Your task to perform on an android device: change text size in settings app Image 0: 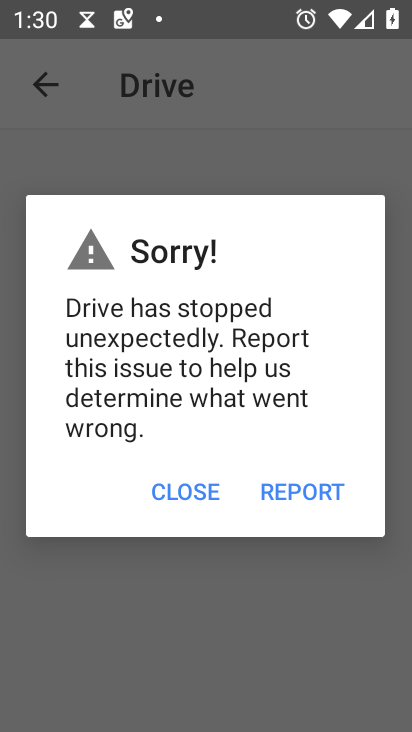
Step 0: press home button
Your task to perform on an android device: change text size in settings app Image 1: 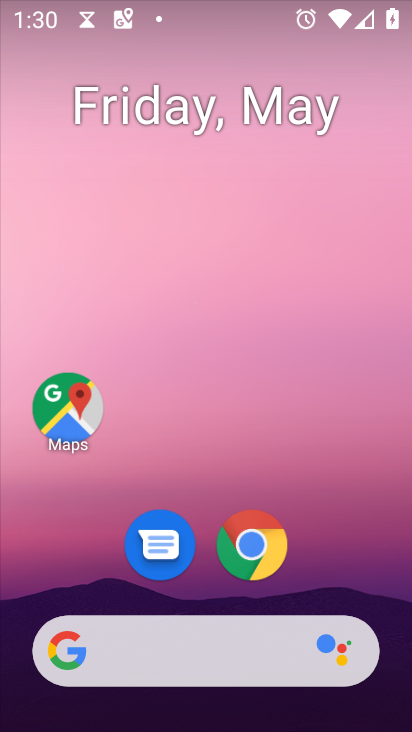
Step 1: drag from (337, 551) to (289, 260)
Your task to perform on an android device: change text size in settings app Image 2: 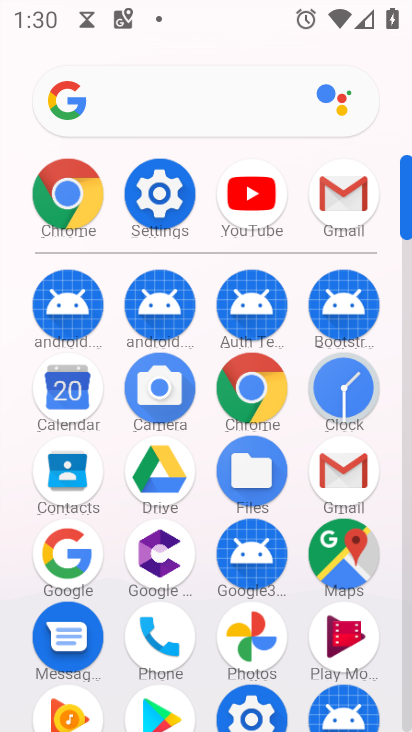
Step 2: click (169, 188)
Your task to perform on an android device: change text size in settings app Image 3: 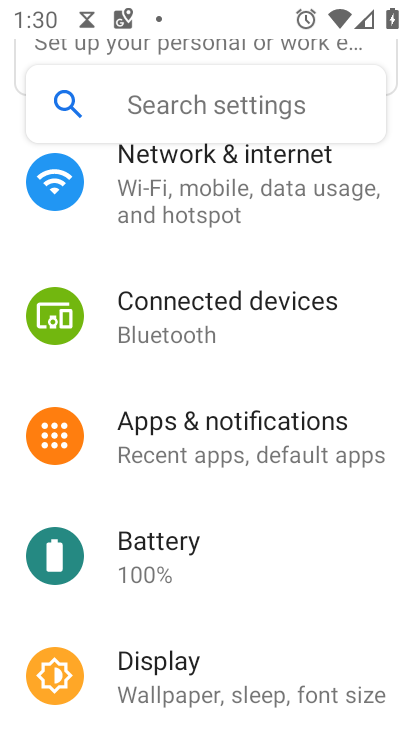
Step 3: drag from (287, 651) to (249, 240)
Your task to perform on an android device: change text size in settings app Image 4: 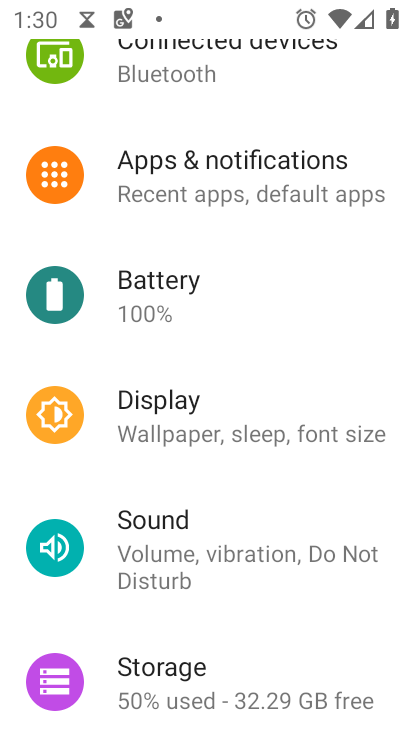
Step 4: drag from (255, 656) to (263, 251)
Your task to perform on an android device: change text size in settings app Image 5: 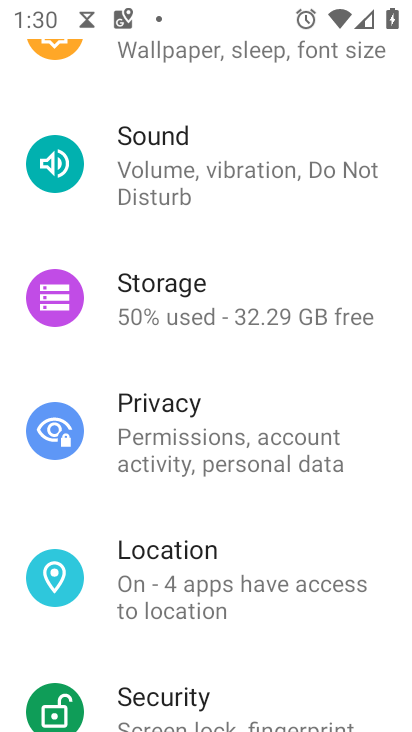
Step 5: drag from (261, 633) to (260, 122)
Your task to perform on an android device: change text size in settings app Image 6: 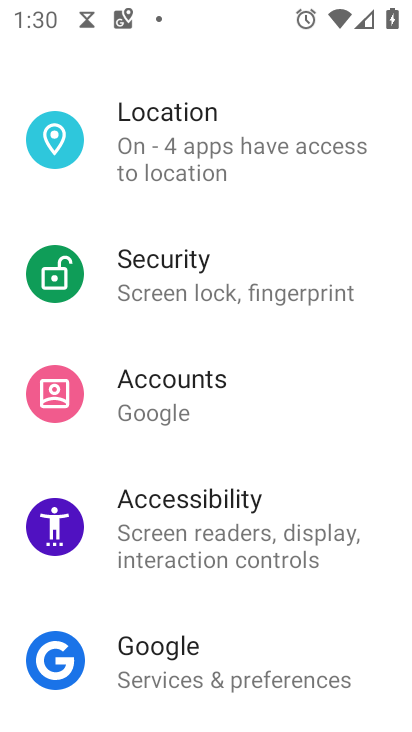
Step 6: drag from (247, 622) to (277, 220)
Your task to perform on an android device: change text size in settings app Image 7: 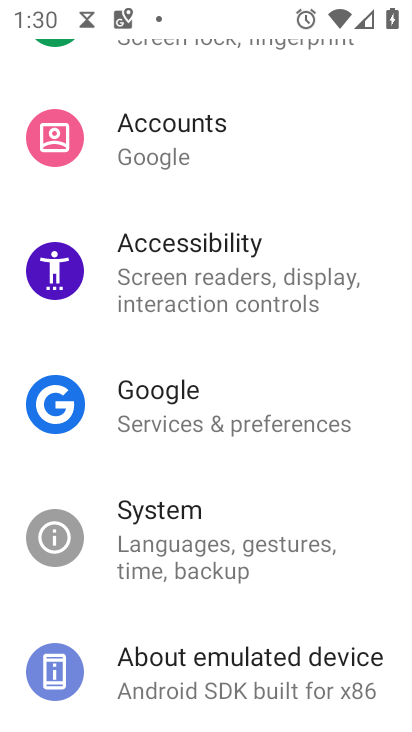
Step 7: click (234, 551)
Your task to perform on an android device: change text size in settings app Image 8: 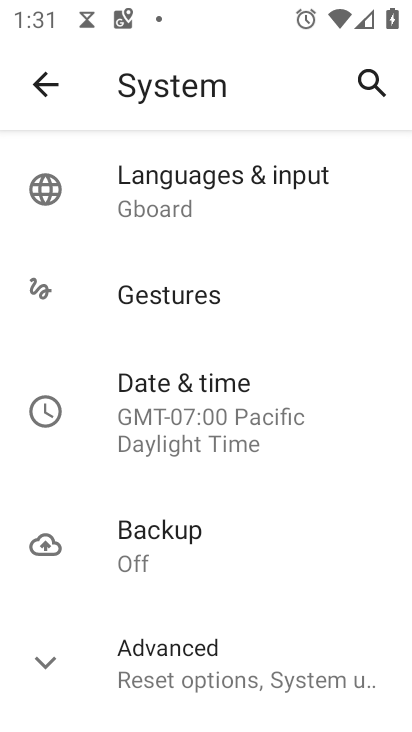
Step 8: click (137, 196)
Your task to perform on an android device: change text size in settings app Image 9: 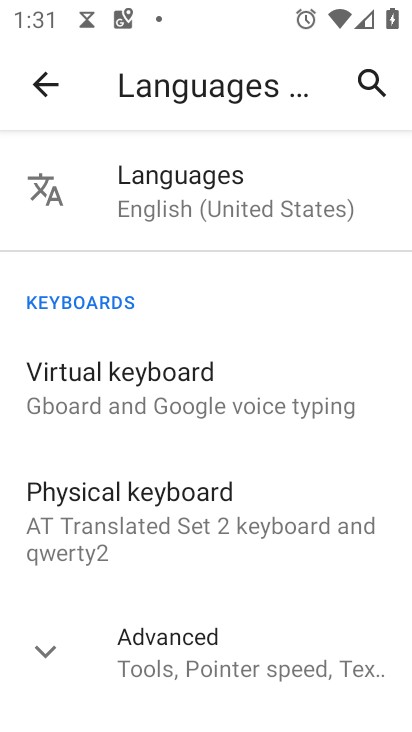
Step 9: click (57, 102)
Your task to perform on an android device: change text size in settings app Image 10: 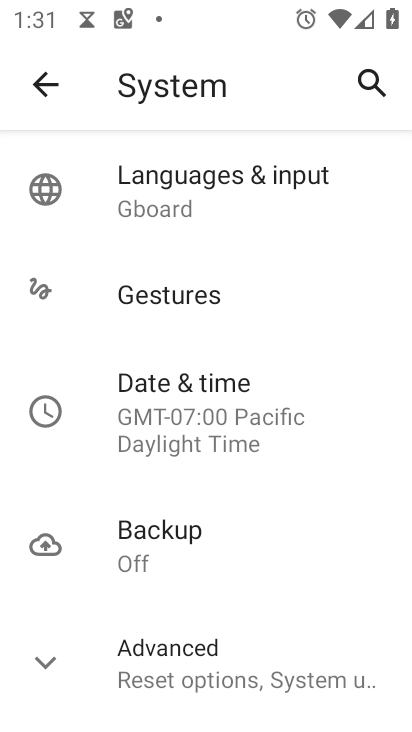
Step 10: click (57, 102)
Your task to perform on an android device: change text size in settings app Image 11: 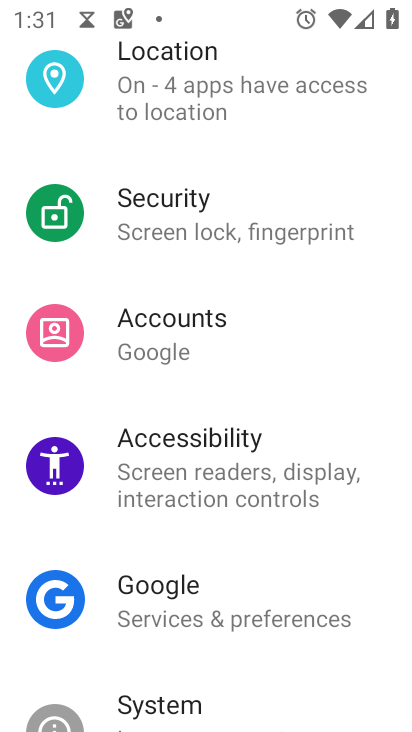
Step 11: drag from (318, 204) to (249, 527)
Your task to perform on an android device: change text size in settings app Image 12: 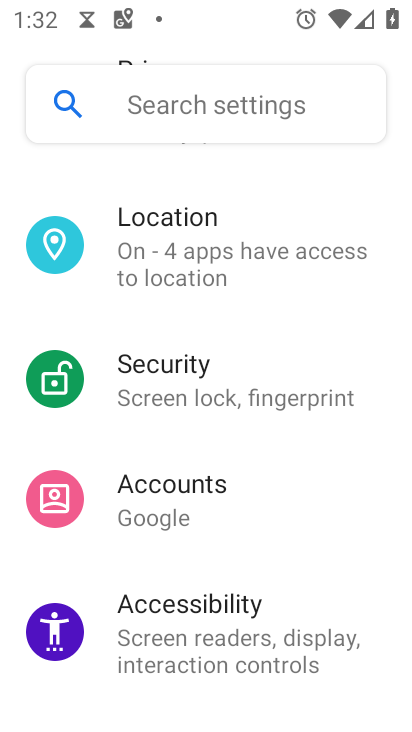
Step 12: drag from (273, 306) to (206, 619)
Your task to perform on an android device: change text size in settings app Image 13: 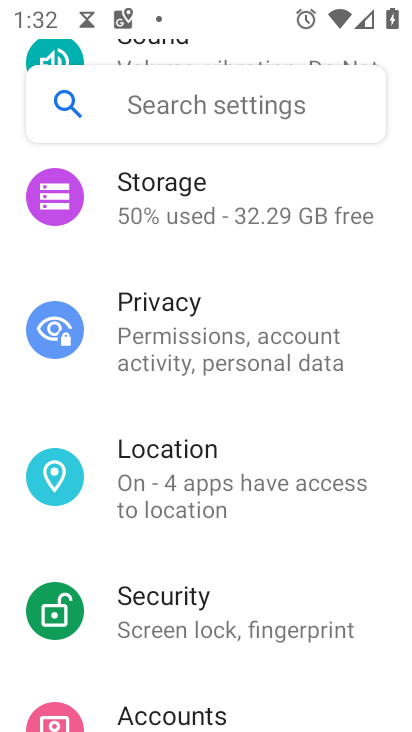
Step 13: drag from (215, 223) to (242, 473)
Your task to perform on an android device: change text size in settings app Image 14: 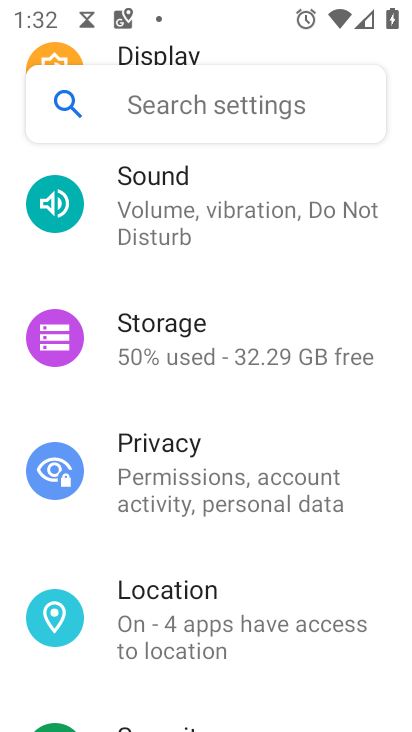
Step 14: drag from (262, 323) to (247, 532)
Your task to perform on an android device: change text size in settings app Image 15: 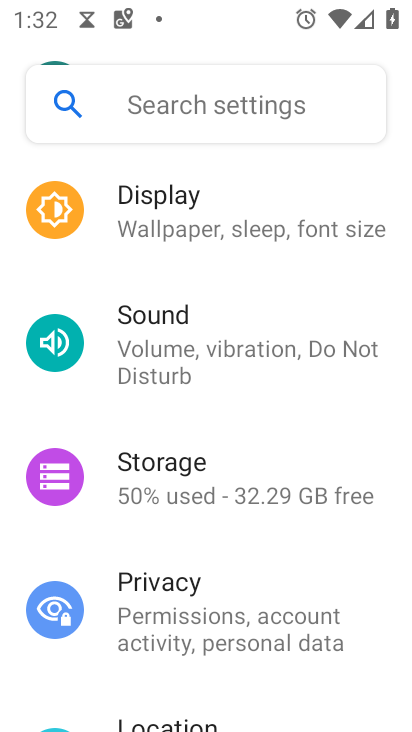
Step 15: click (228, 211)
Your task to perform on an android device: change text size in settings app Image 16: 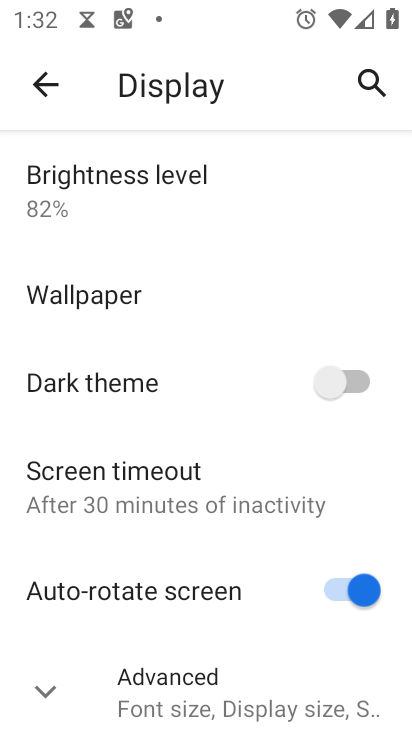
Step 16: click (232, 717)
Your task to perform on an android device: change text size in settings app Image 17: 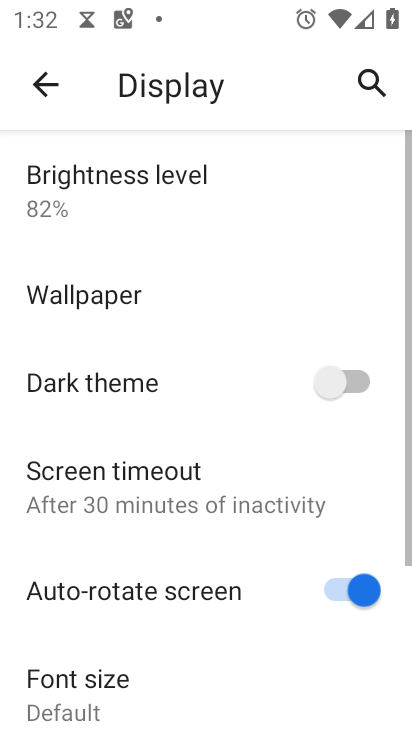
Step 17: drag from (239, 600) to (227, 271)
Your task to perform on an android device: change text size in settings app Image 18: 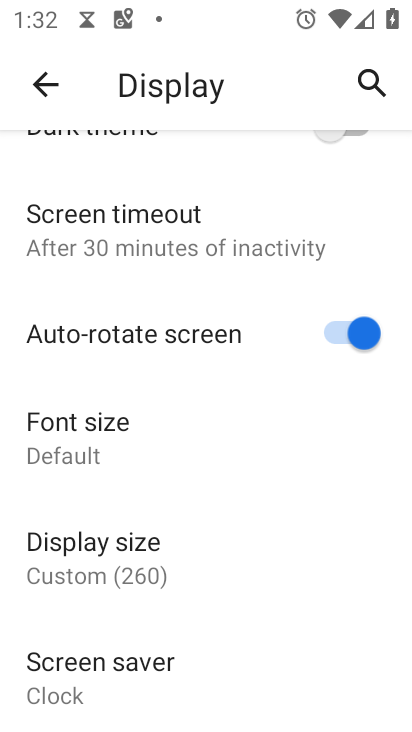
Step 18: click (115, 445)
Your task to perform on an android device: change text size in settings app Image 19: 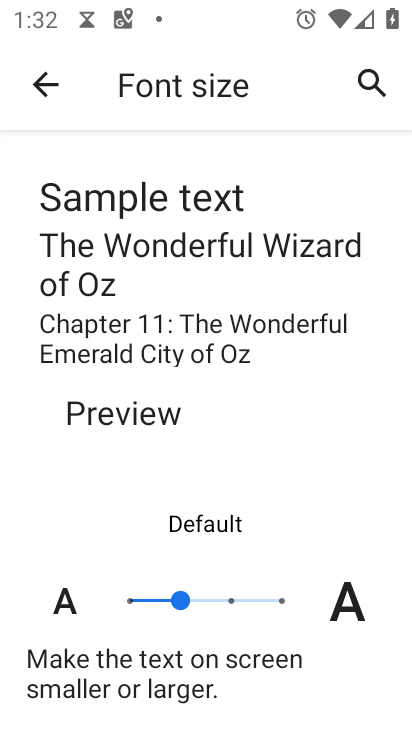
Step 19: click (126, 604)
Your task to perform on an android device: change text size in settings app Image 20: 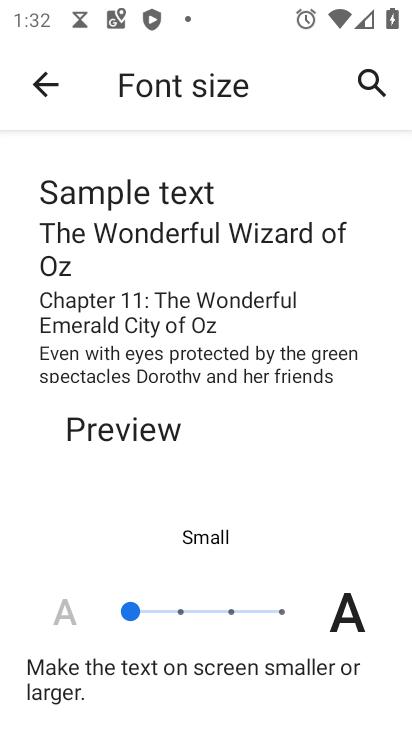
Step 20: task complete